Your task to perform on an android device: change keyboard looks Image 0: 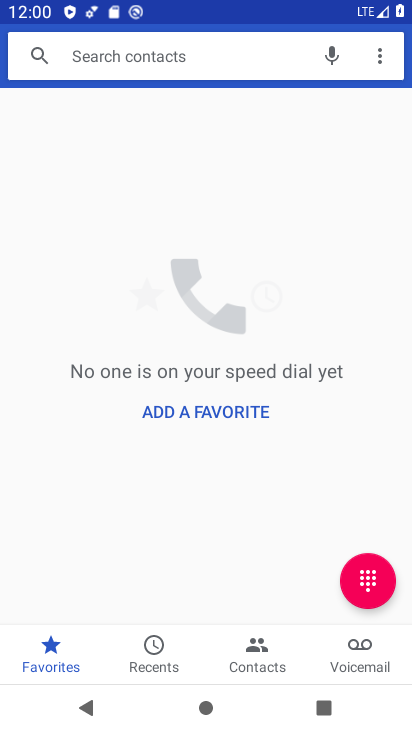
Step 0: press home button
Your task to perform on an android device: change keyboard looks Image 1: 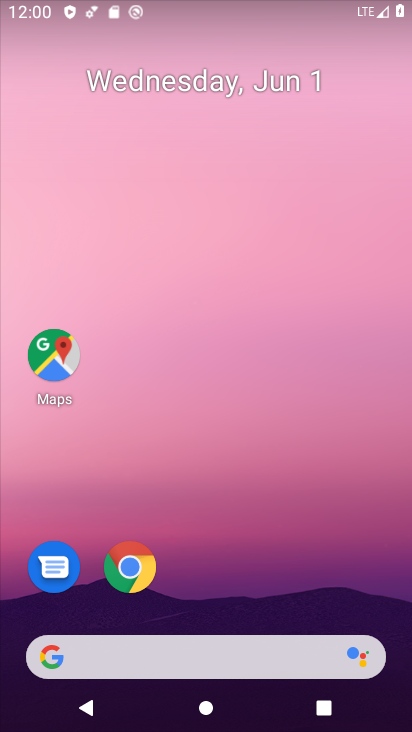
Step 1: drag from (234, 615) to (200, 92)
Your task to perform on an android device: change keyboard looks Image 2: 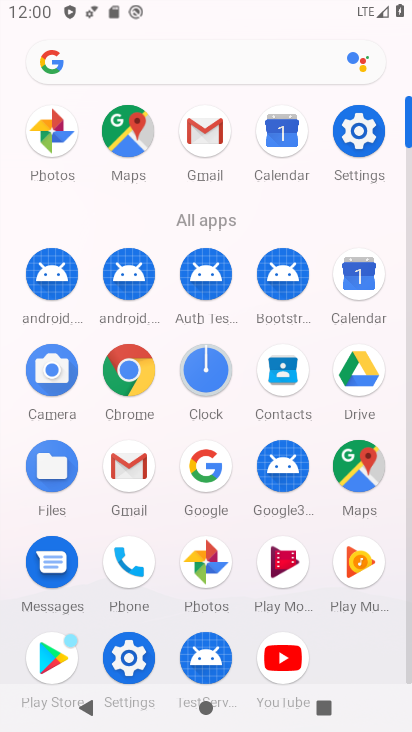
Step 2: click (376, 135)
Your task to perform on an android device: change keyboard looks Image 3: 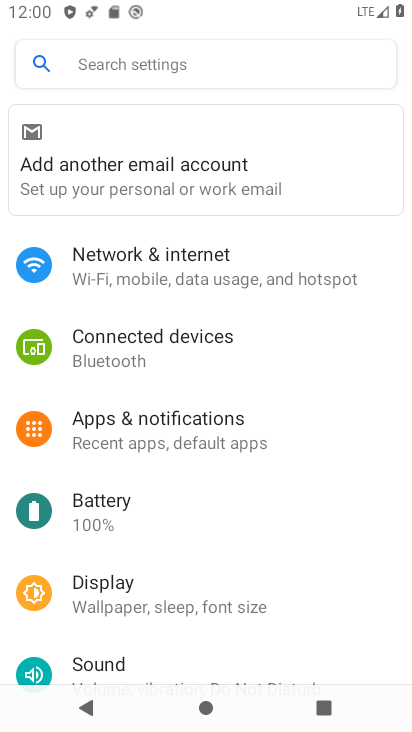
Step 3: drag from (249, 643) to (243, 299)
Your task to perform on an android device: change keyboard looks Image 4: 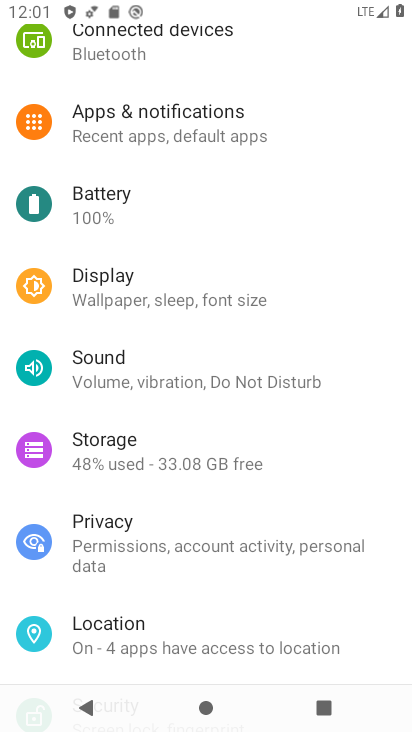
Step 4: drag from (221, 652) to (218, 239)
Your task to perform on an android device: change keyboard looks Image 5: 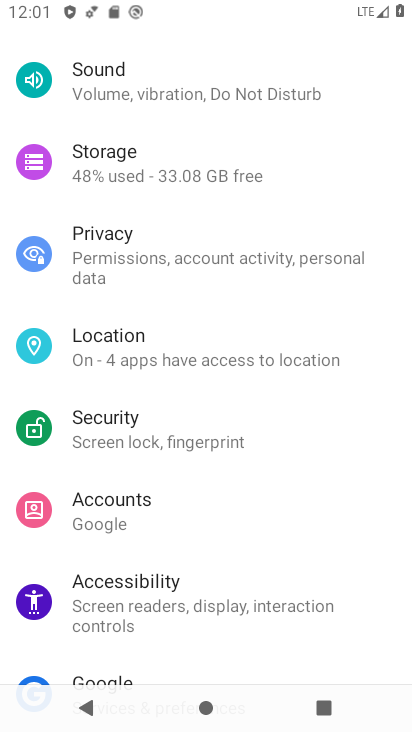
Step 5: drag from (222, 657) to (200, 285)
Your task to perform on an android device: change keyboard looks Image 6: 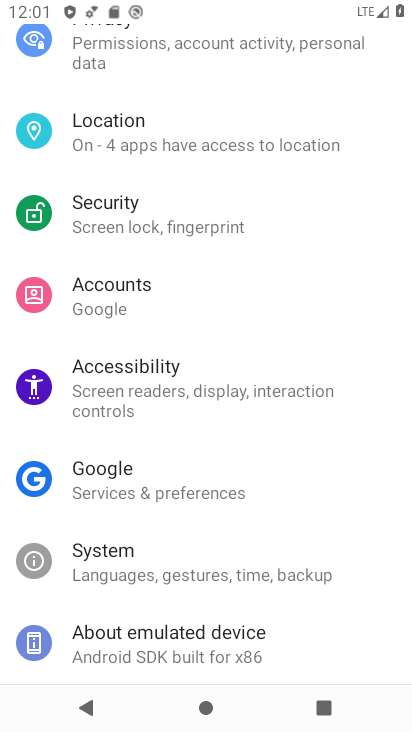
Step 6: click (173, 631)
Your task to perform on an android device: change keyboard looks Image 7: 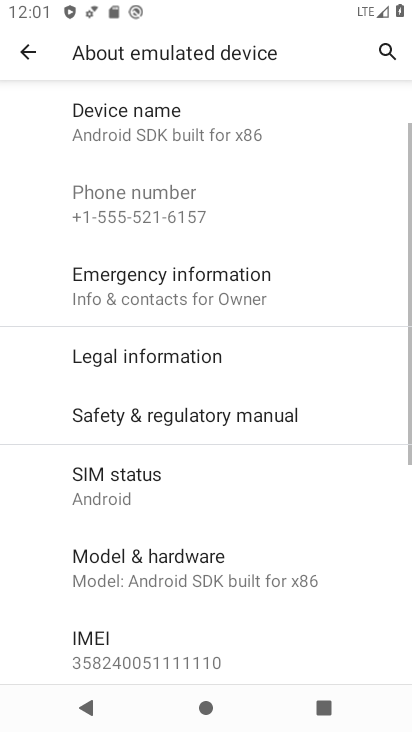
Step 7: press back button
Your task to perform on an android device: change keyboard looks Image 8: 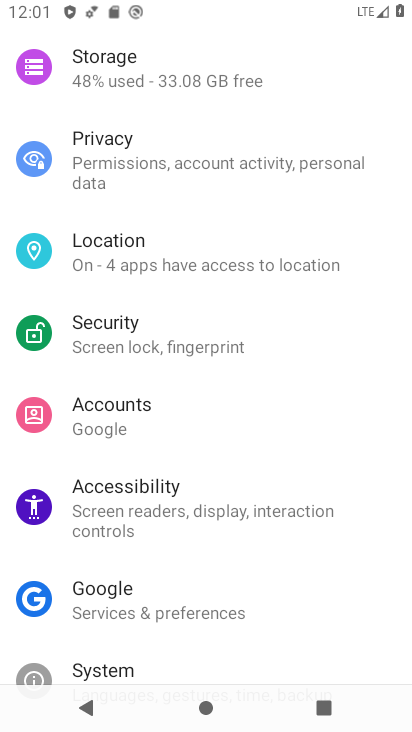
Step 8: drag from (278, 589) to (259, 253)
Your task to perform on an android device: change keyboard looks Image 9: 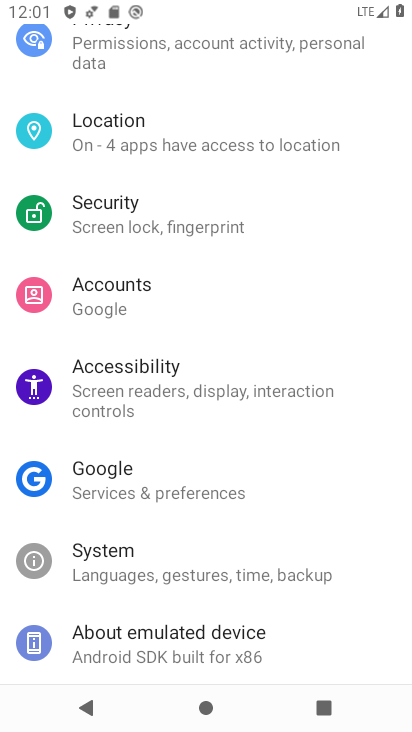
Step 9: click (262, 565)
Your task to perform on an android device: change keyboard looks Image 10: 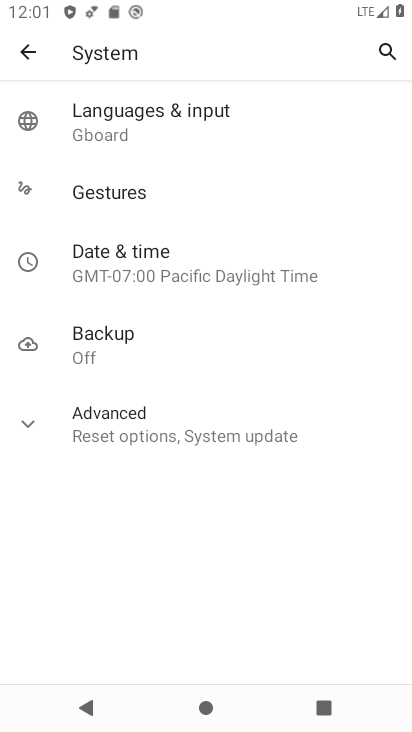
Step 10: click (197, 116)
Your task to perform on an android device: change keyboard looks Image 11: 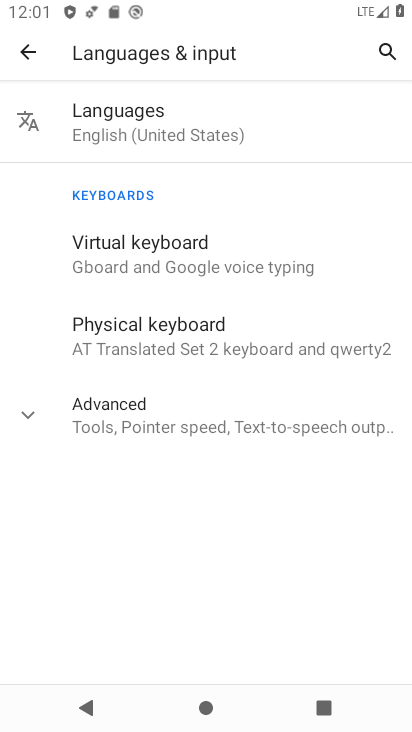
Step 11: click (209, 241)
Your task to perform on an android device: change keyboard looks Image 12: 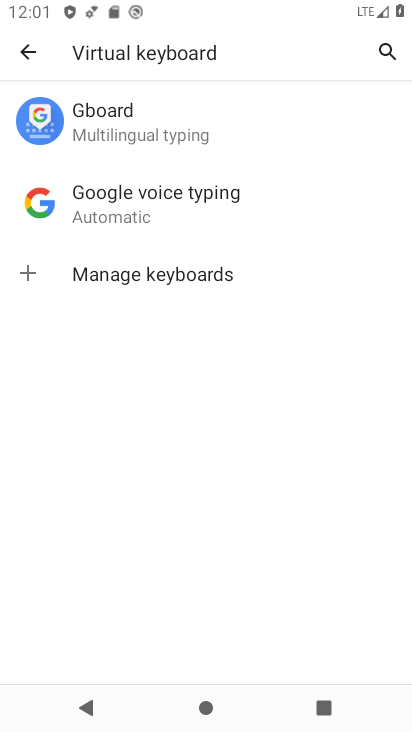
Step 12: click (188, 136)
Your task to perform on an android device: change keyboard looks Image 13: 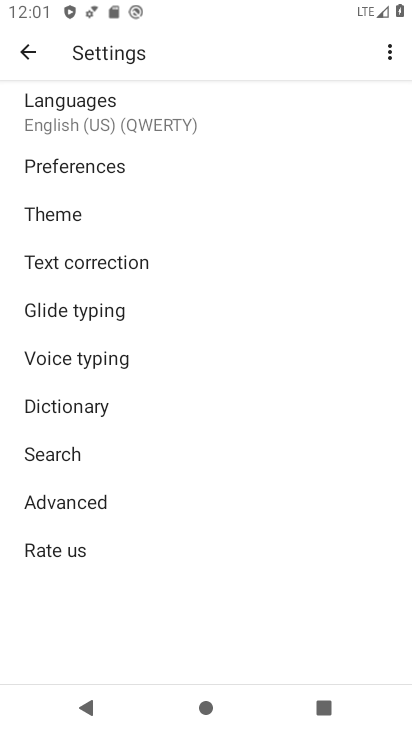
Step 13: click (149, 210)
Your task to perform on an android device: change keyboard looks Image 14: 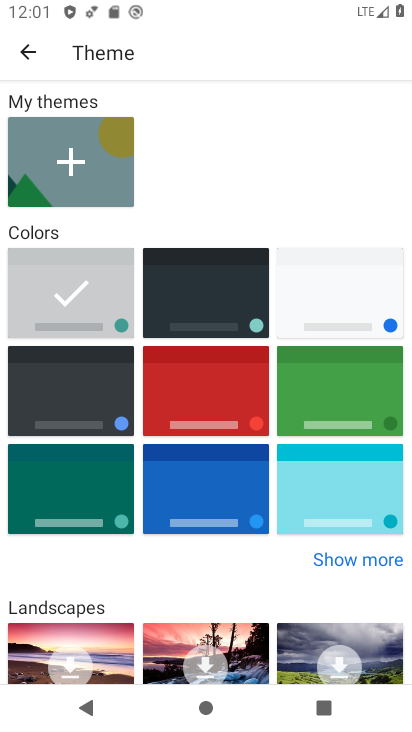
Step 14: click (197, 271)
Your task to perform on an android device: change keyboard looks Image 15: 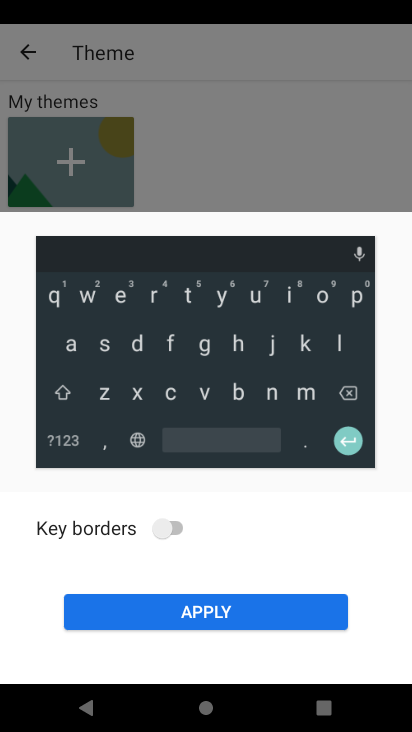
Step 15: click (237, 605)
Your task to perform on an android device: change keyboard looks Image 16: 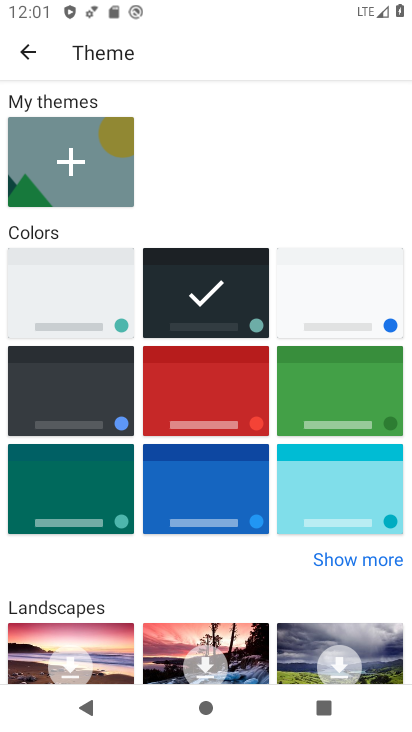
Step 16: task complete